Your task to perform on an android device: Open privacy settings Image 0: 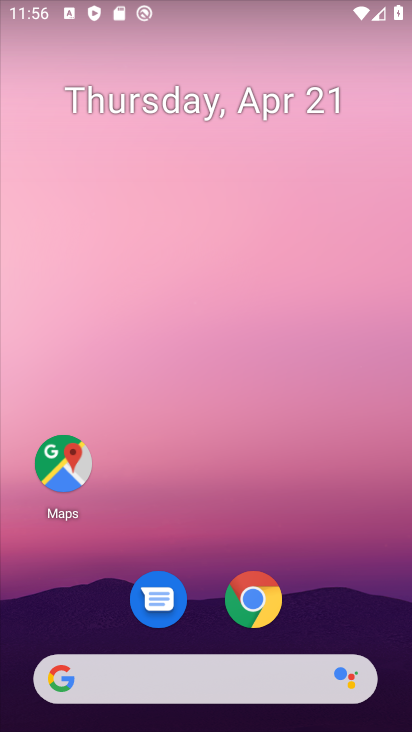
Step 0: drag from (190, 529) to (166, 64)
Your task to perform on an android device: Open privacy settings Image 1: 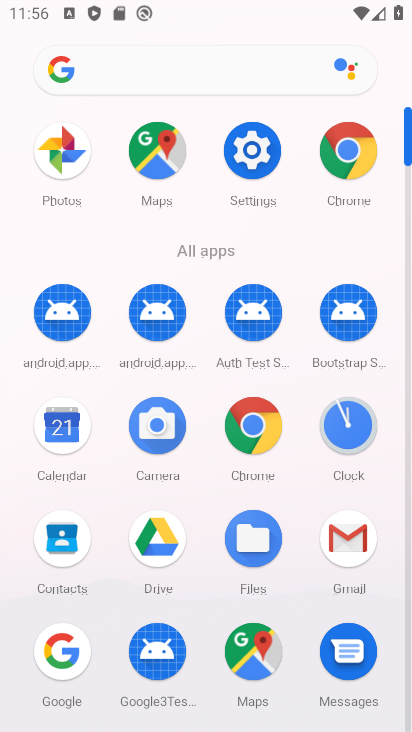
Step 1: drag from (191, 616) to (202, 212)
Your task to perform on an android device: Open privacy settings Image 2: 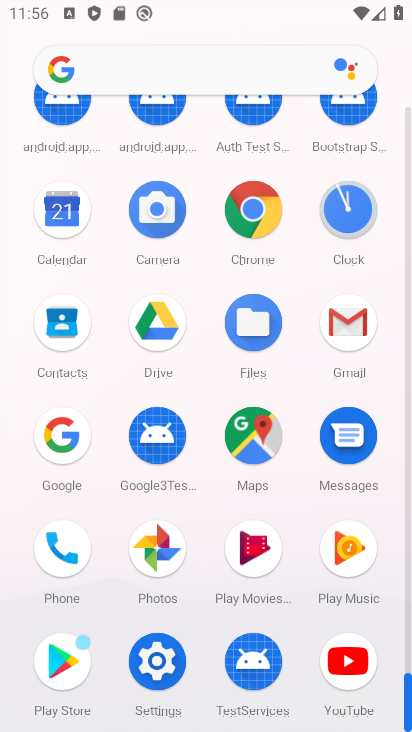
Step 2: click (154, 663)
Your task to perform on an android device: Open privacy settings Image 3: 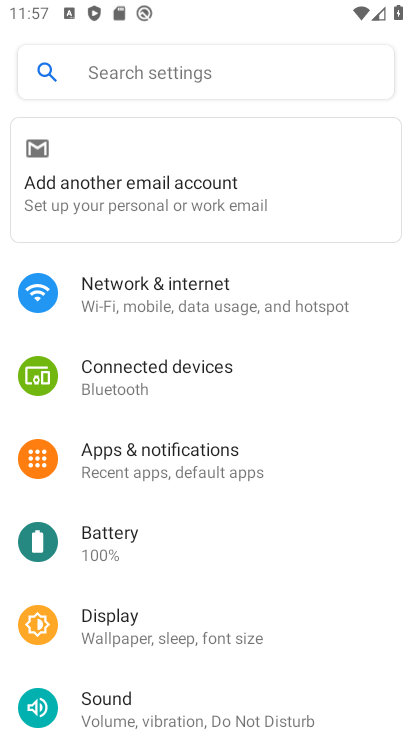
Step 3: drag from (183, 688) to (241, 126)
Your task to perform on an android device: Open privacy settings Image 4: 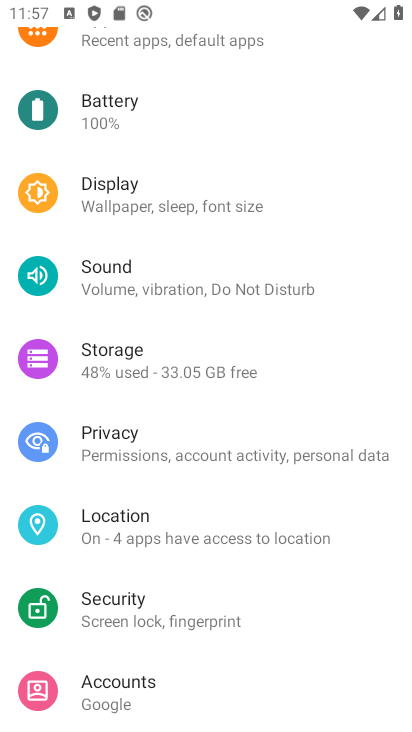
Step 4: click (182, 422)
Your task to perform on an android device: Open privacy settings Image 5: 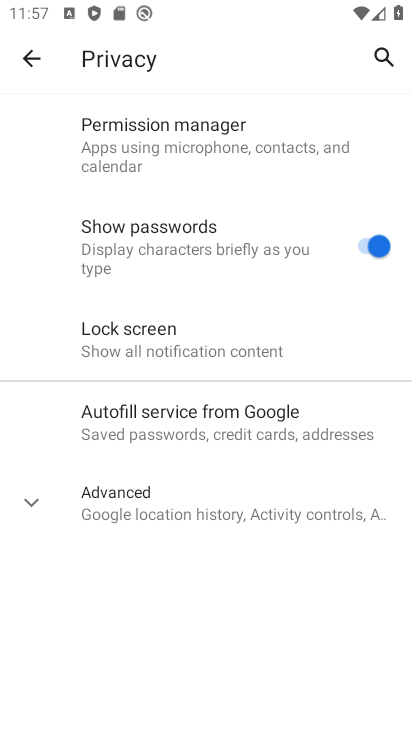
Step 5: task complete